Your task to perform on an android device: toggle location history Image 0: 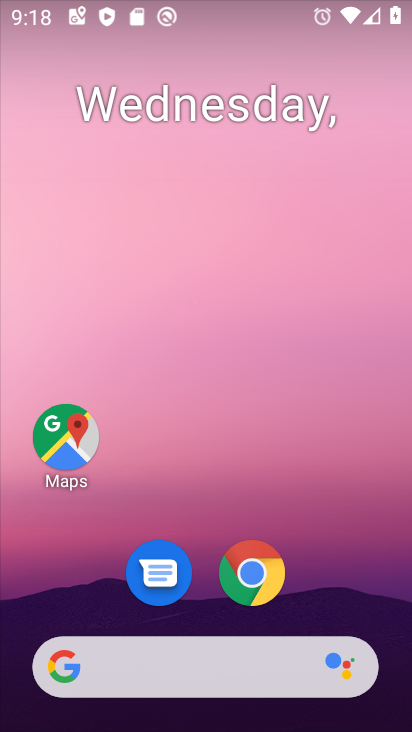
Step 0: drag from (238, 525) to (229, 32)
Your task to perform on an android device: toggle location history Image 1: 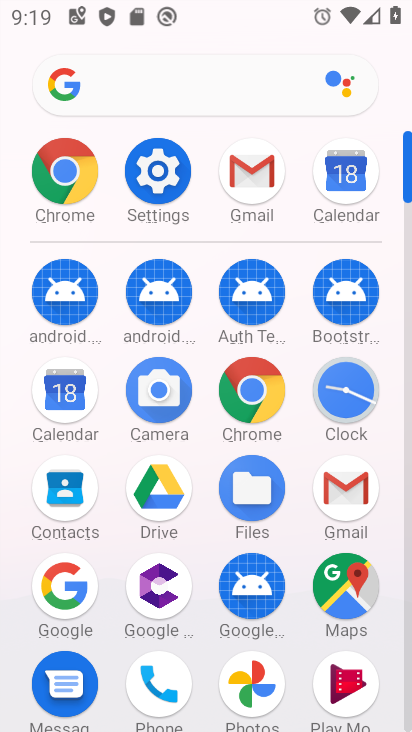
Step 1: click (173, 170)
Your task to perform on an android device: toggle location history Image 2: 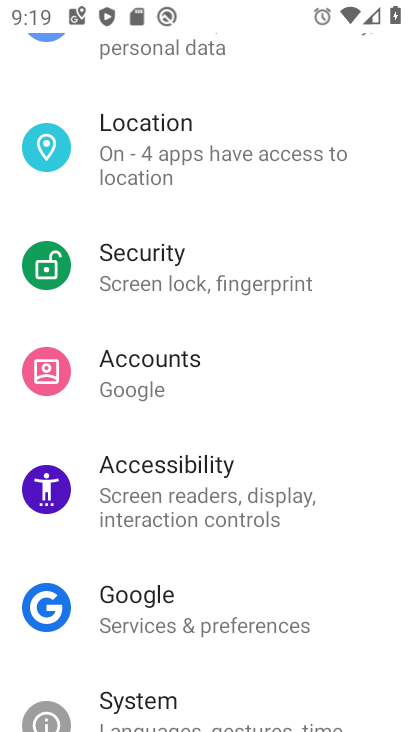
Step 2: drag from (189, 583) to (217, 140)
Your task to perform on an android device: toggle location history Image 3: 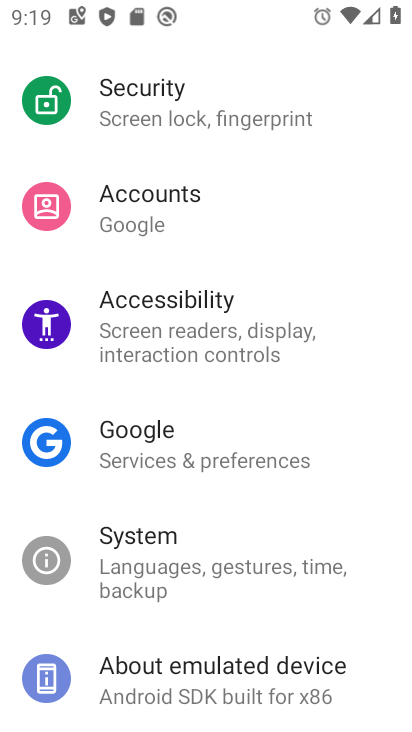
Step 3: drag from (213, 212) to (208, 729)
Your task to perform on an android device: toggle location history Image 4: 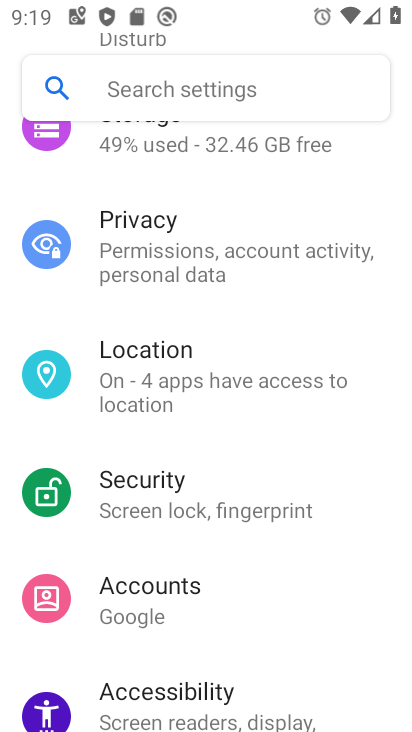
Step 4: drag from (215, 337) to (216, 608)
Your task to perform on an android device: toggle location history Image 5: 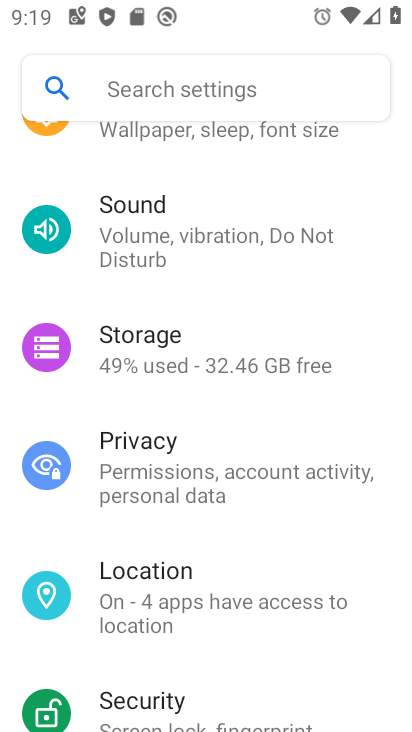
Step 5: click (258, 607)
Your task to perform on an android device: toggle location history Image 6: 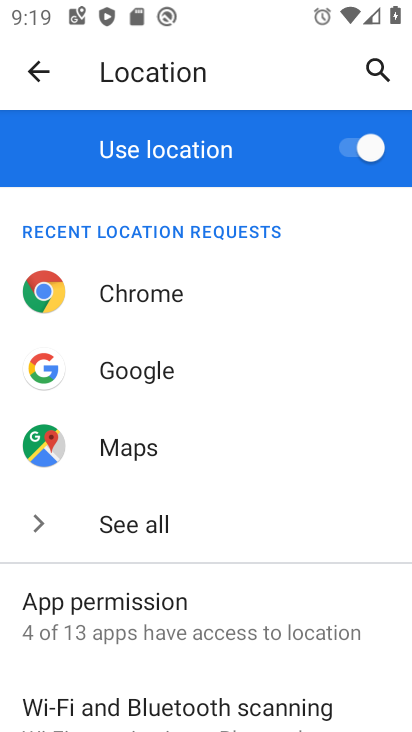
Step 6: drag from (204, 609) to (258, 306)
Your task to perform on an android device: toggle location history Image 7: 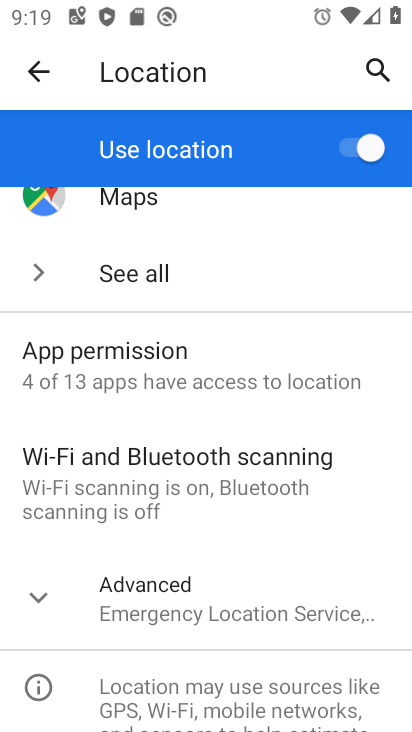
Step 7: click (195, 602)
Your task to perform on an android device: toggle location history Image 8: 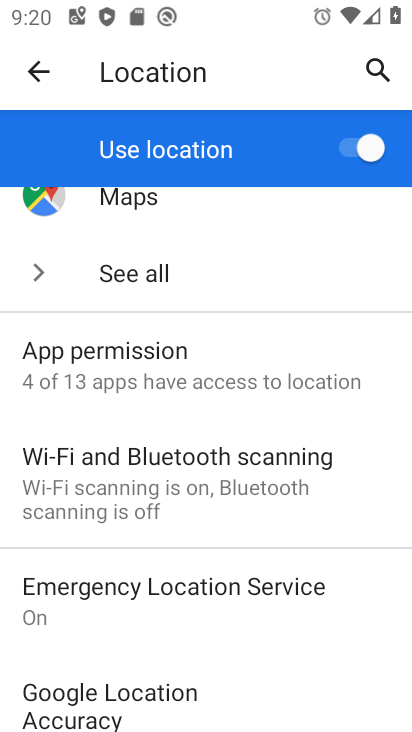
Step 8: drag from (225, 589) to (249, 371)
Your task to perform on an android device: toggle location history Image 9: 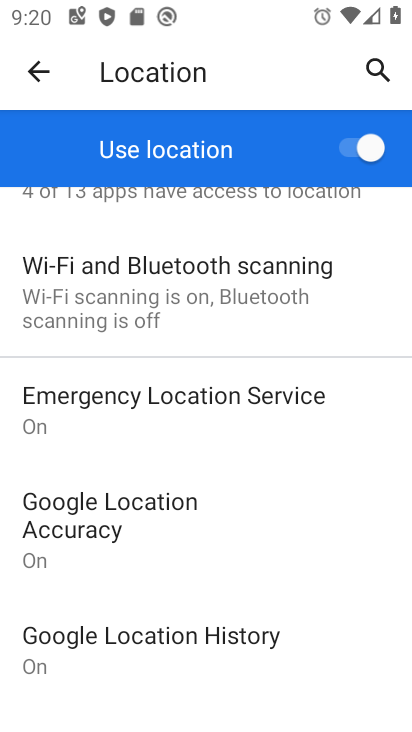
Step 9: click (216, 684)
Your task to perform on an android device: toggle location history Image 10: 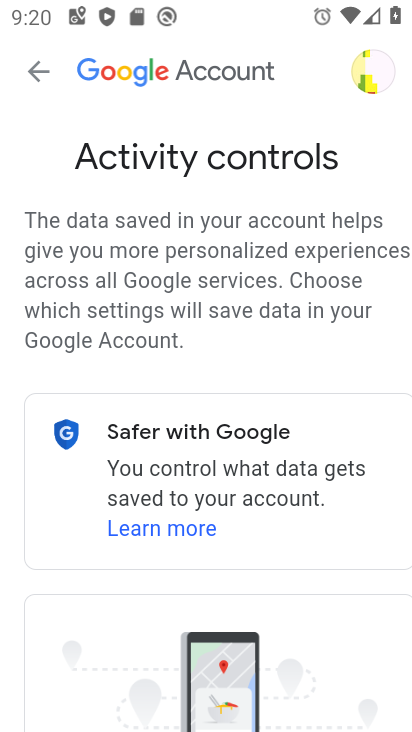
Step 10: drag from (240, 578) to (125, 119)
Your task to perform on an android device: toggle location history Image 11: 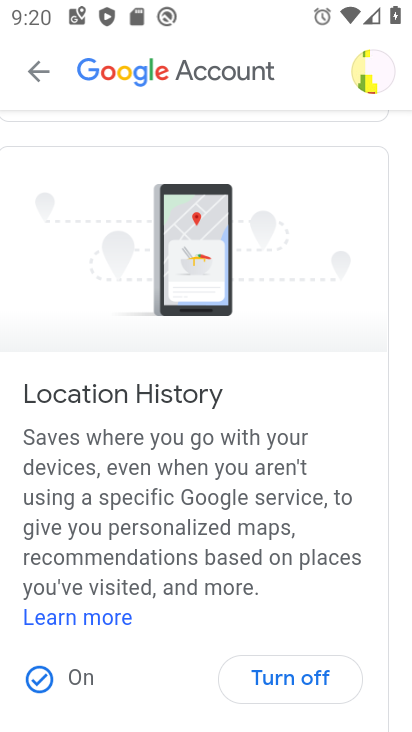
Step 11: click (313, 676)
Your task to perform on an android device: toggle location history Image 12: 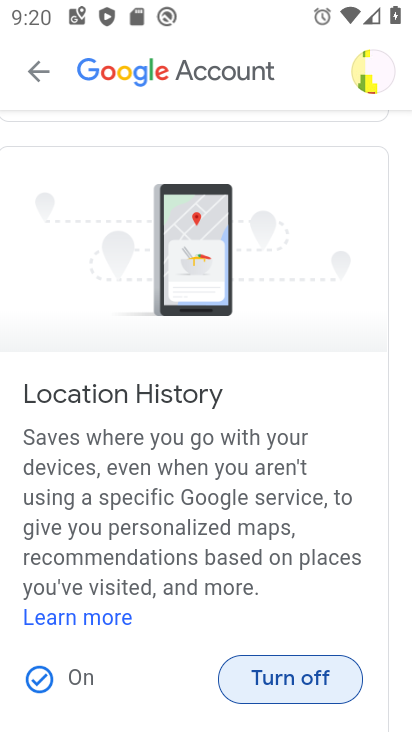
Step 12: click (312, 672)
Your task to perform on an android device: toggle location history Image 13: 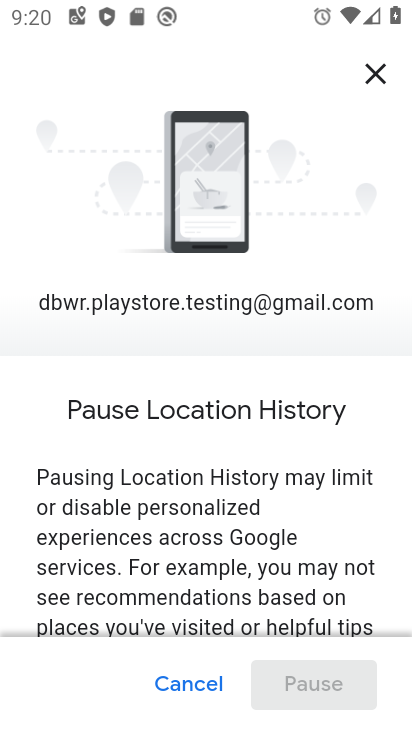
Step 13: drag from (294, 500) to (369, 10)
Your task to perform on an android device: toggle location history Image 14: 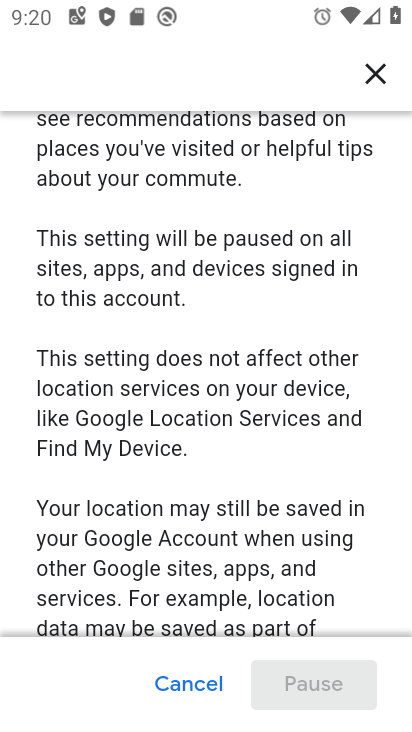
Step 14: drag from (255, 558) to (316, 77)
Your task to perform on an android device: toggle location history Image 15: 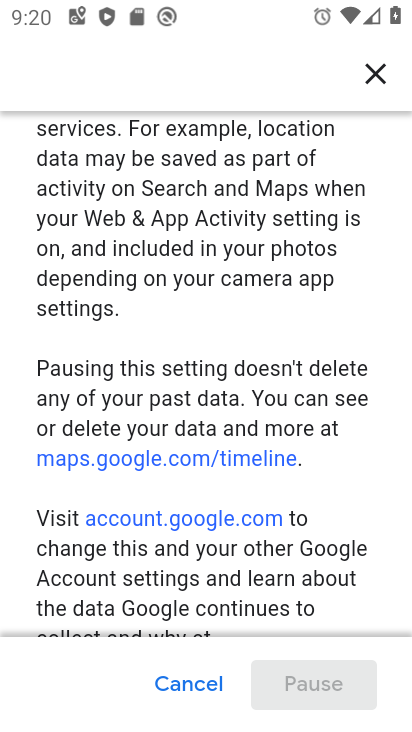
Step 15: drag from (313, 496) to (355, 121)
Your task to perform on an android device: toggle location history Image 16: 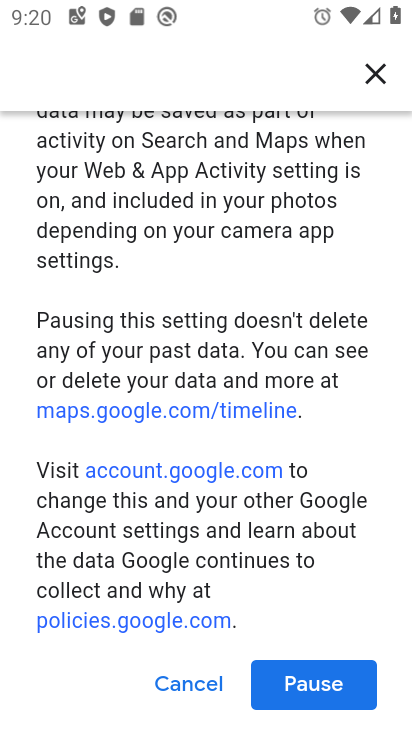
Step 16: click (309, 692)
Your task to perform on an android device: toggle location history Image 17: 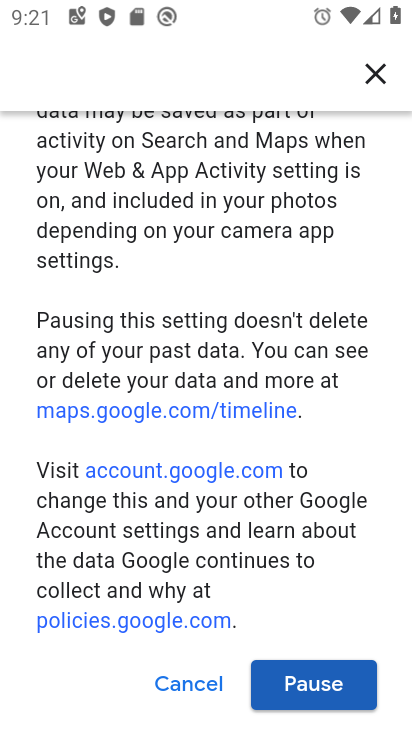
Step 17: click (322, 683)
Your task to perform on an android device: toggle location history Image 18: 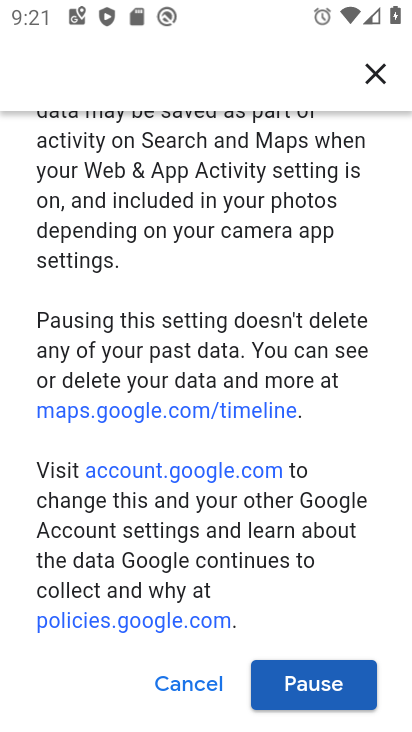
Step 18: click (345, 690)
Your task to perform on an android device: toggle location history Image 19: 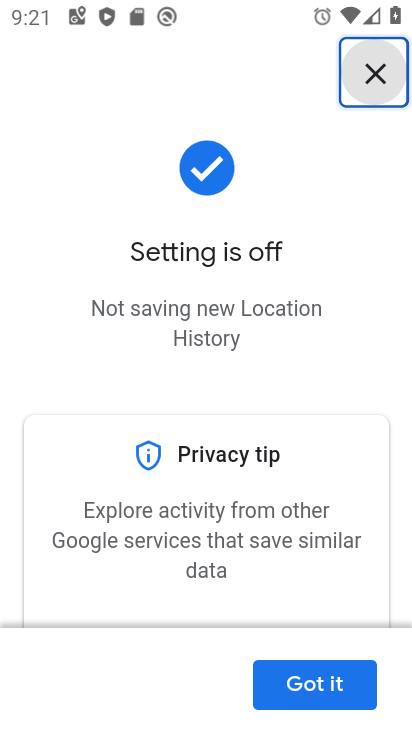
Step 19: click (344, 691)
Your task to perform on an android device: toggle location history Image 20: 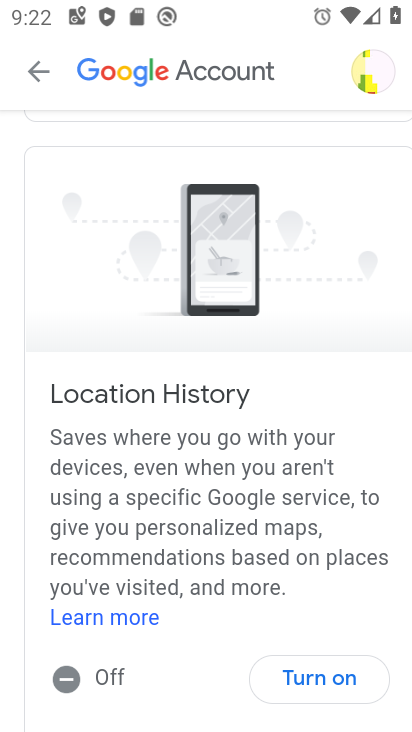
Step 20: task complete